Your task to perform on an android device: open chrome privacy settings Image 0: 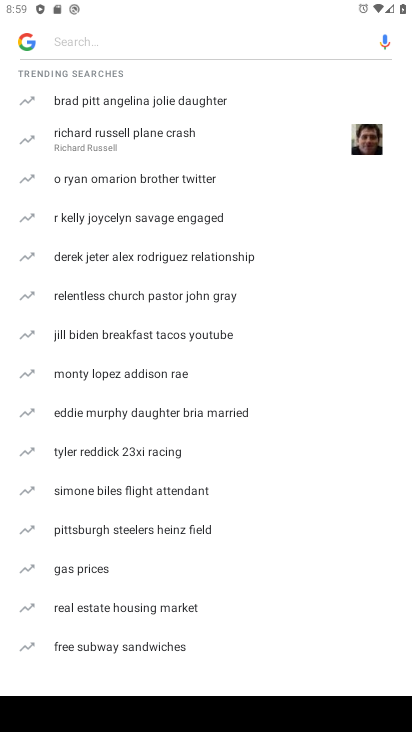
Step 0: press home button
Your task to perform on an android device: open chrome privacy settings Image 1: 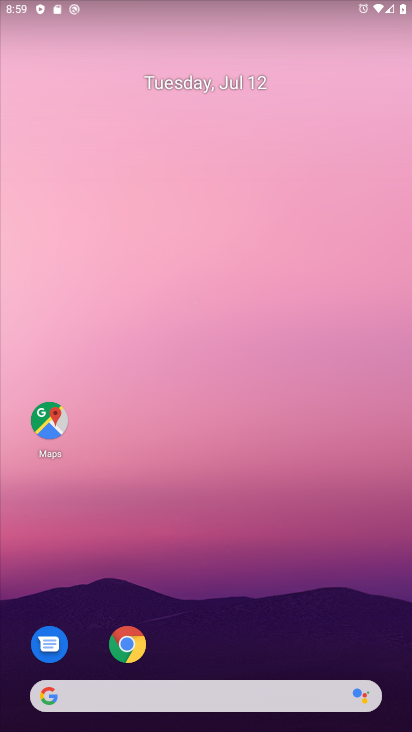
Step 1: click (109, 640)
Your task to perform on an android device: open chrome privacy settings Image 2: 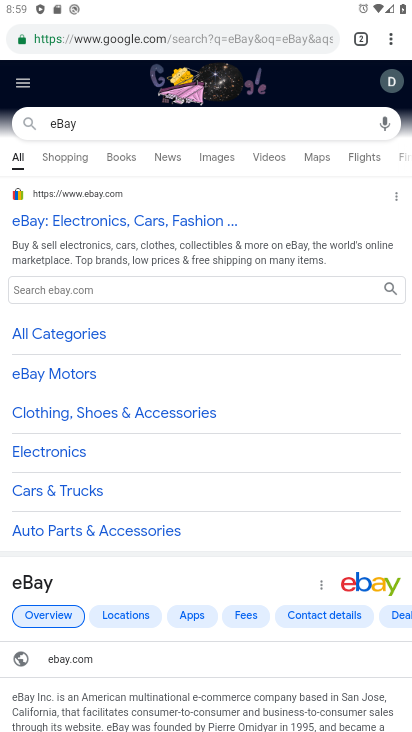
Step 2: click (385, 36)
Your task to perform on an android device: open chrome privacy settings Image 3: 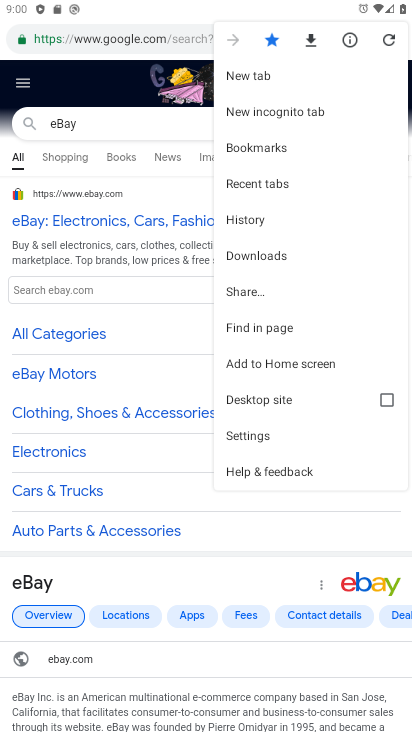
Step 3: click (242, 432)
Your task to perform on an android device: open chrome privacy settings Image 4: 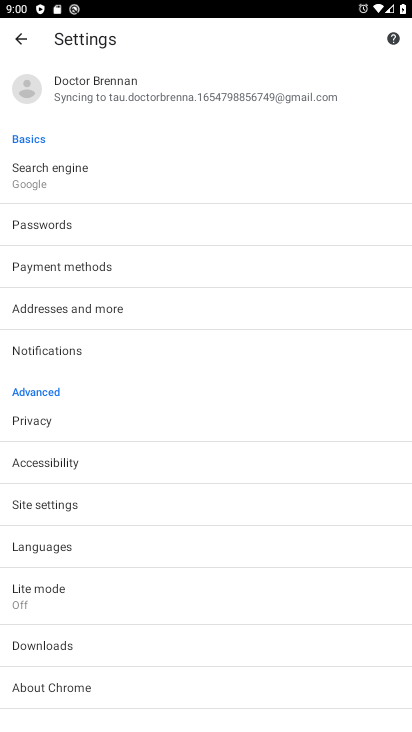
Step 4: click (47, 424)
Your task to perform on an android device: open chrome privacy settings Image 5: 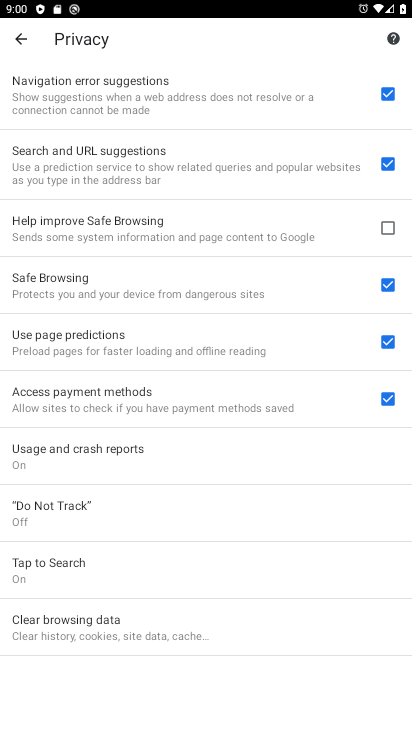
Step 5: task complete